Your task to perform on an android device: Open Google Chrome and click the shortcut for Amazon.com Image 0: 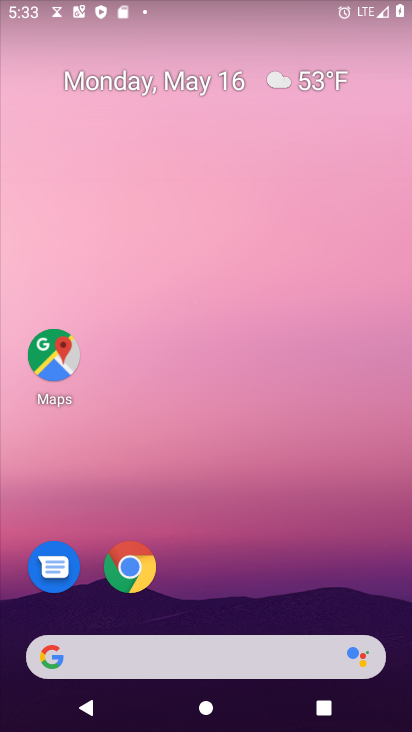
Step 0: drag from (272, 686) to (349, 114)
Your task to perform on an android device: Open Google Chrome and click the shortcut for Amazon.com Image 1: 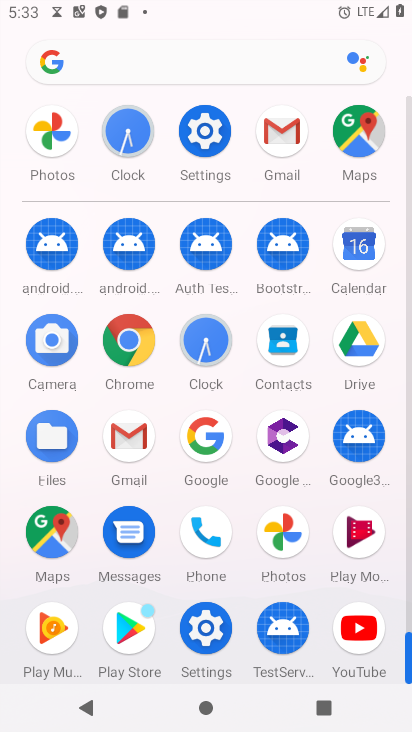
Step 1: click (136, 346)
Your task to perform on an android device: Open Google Chrome and click the shortcut for Amazon.com Image 2: 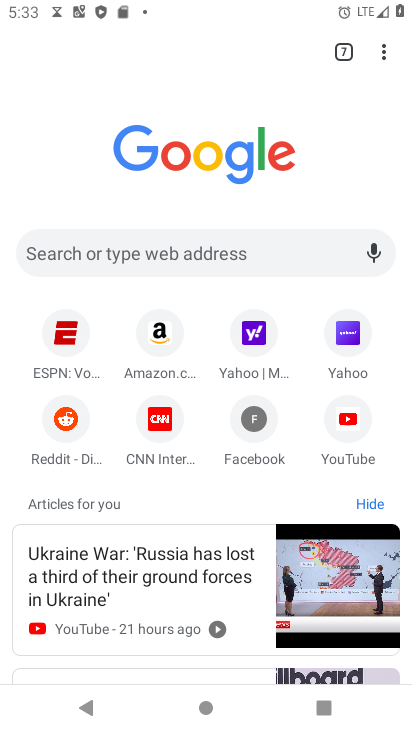
Step 2: click (386, 50)
Your task to perform on an android device: Open Google Chrome and click the shortcut for Amazon.com Image 3: 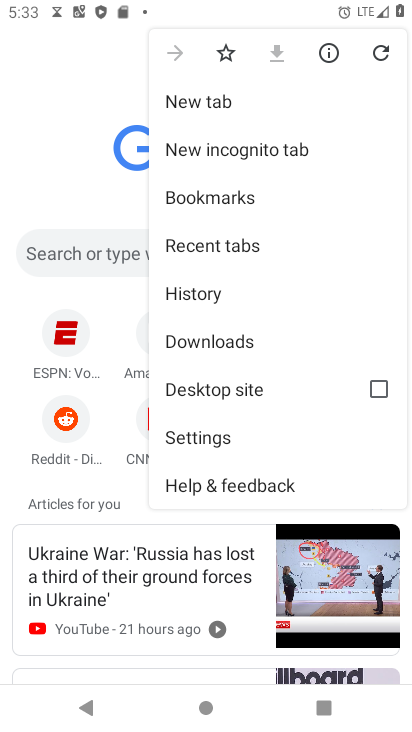
Step 3: drag from (310, 448) to (309, 187)
Your task to perform on an android device: Open Google Chrome and click the shortcut for Amazon.com Image 4: 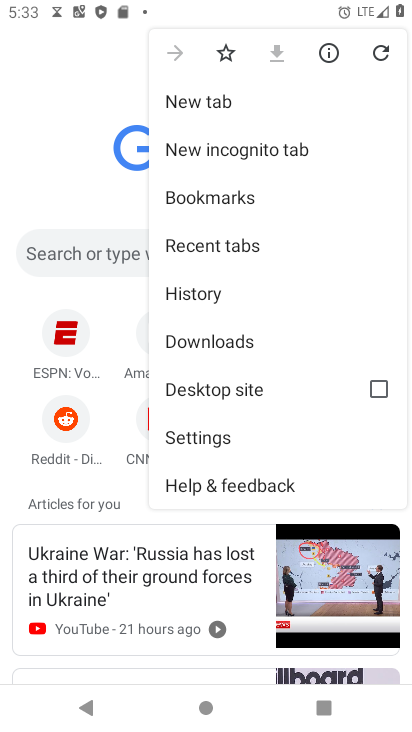
Step 4: click (140, 327)
Your task to perform on an android device: Open Google Chrome and click the shortcut for Amazon.com Image 5: 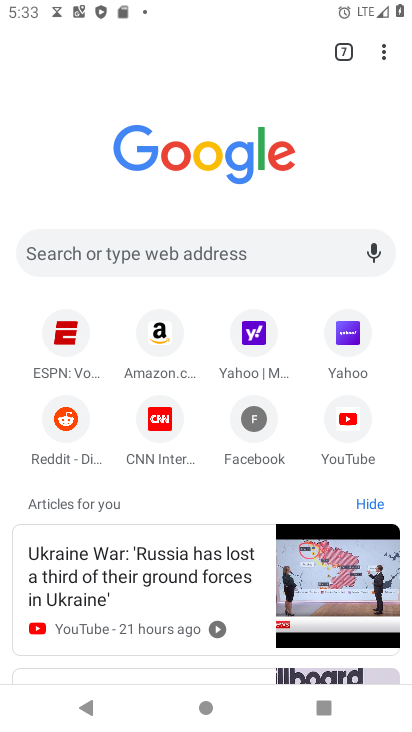
Step 5: click (160, 340)
Your task to perform on an android device: Open Google Chrome and click the shortcut for Amazon.com Image 6: 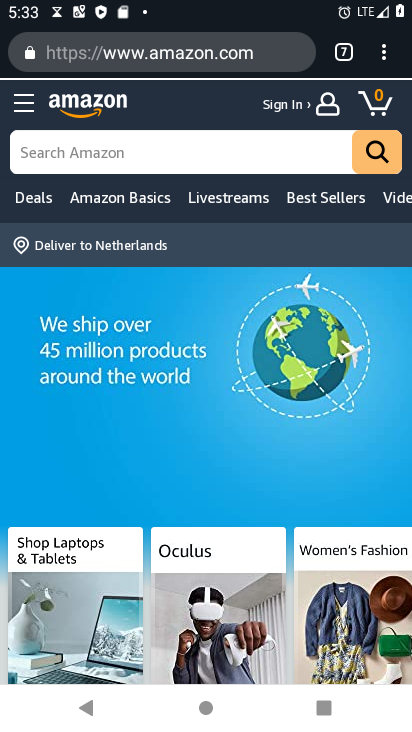
Step 6: click (378, 59)
Your task to perform on an android device: Open Google Chrome and click the shortcut for Amazon.com Image 7: 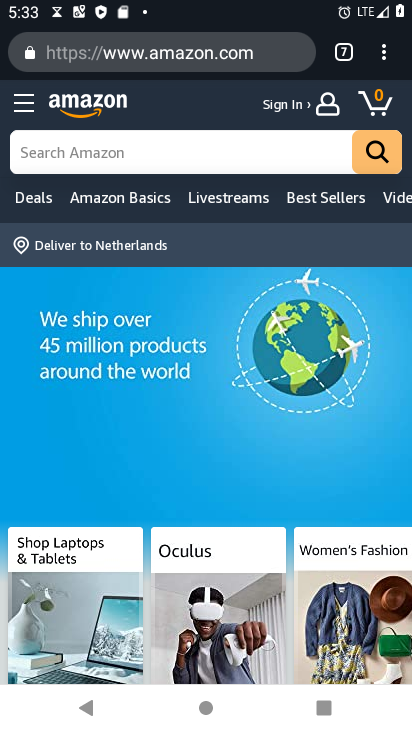
Step 7: drag from (383, 53) to (241, 551)
Your task to perform on an android device: Open Google Chrome and click the shortcut for Amazon.com Image 8: 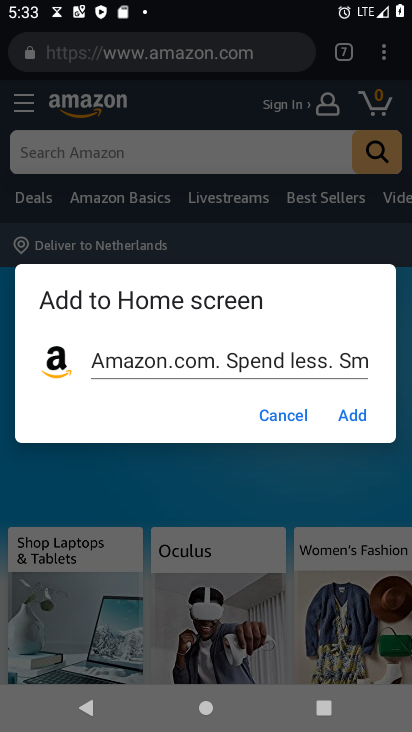
Step 8: click (355, 421)
Your task to perform on an android device: Open Google Chrome and click the shortcut for Amazon.com Image 9: 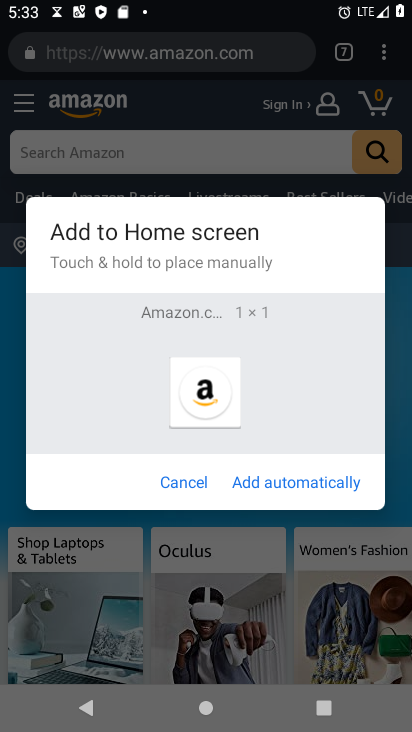
Step 9: click (319, 479)
Your task to perform on an android device: Open Google Chrome and click the shortcut for Amazon.com Image 10: 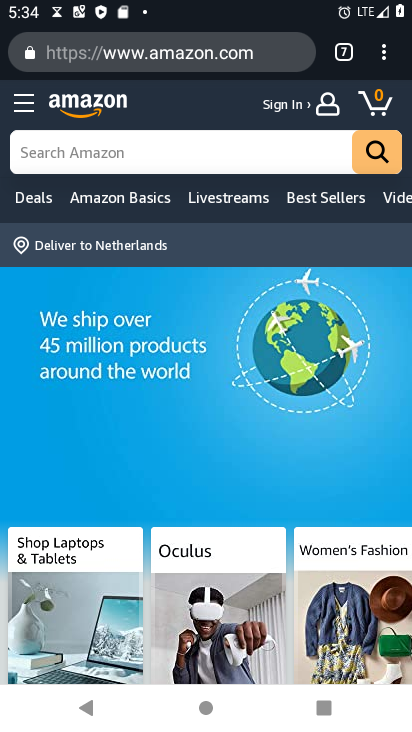
Step 10: task complete